Your task to perform on an android device: set the stopwatch Image 0: 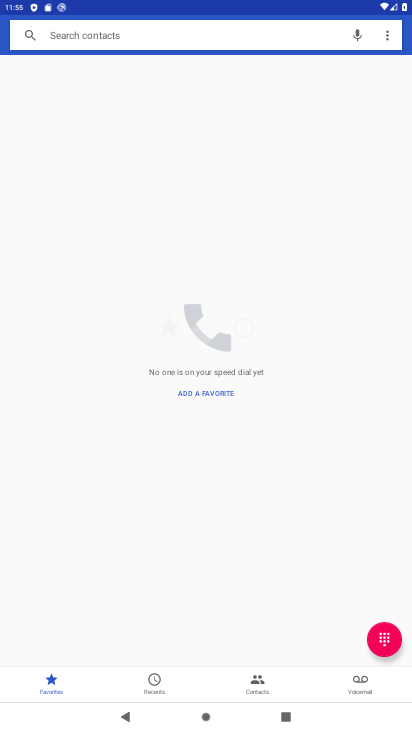
Step 0: press home button
Your task to perform on an android device: set the stopwatch Image 1: 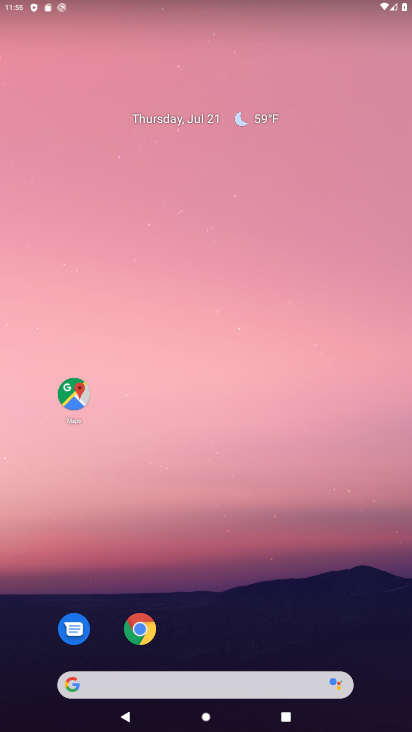
Step 1: drag from (273, 618) to (309, 212)
Your task to perform on an android device: set the stopwatch Image 2: 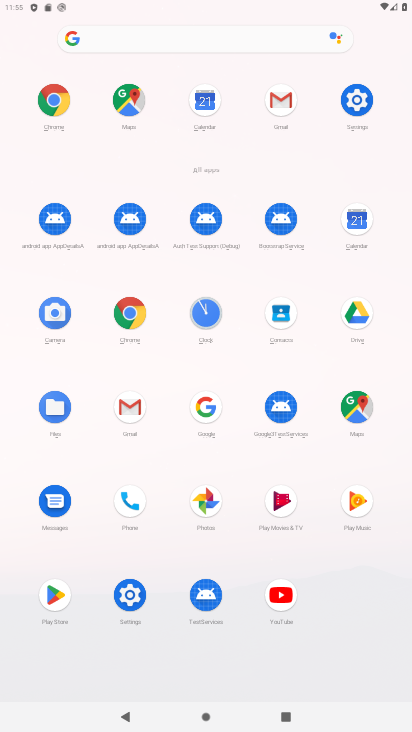
Step 2: click (197, 309)
Your task to perform on an android device: set the stopwatch Image 3: 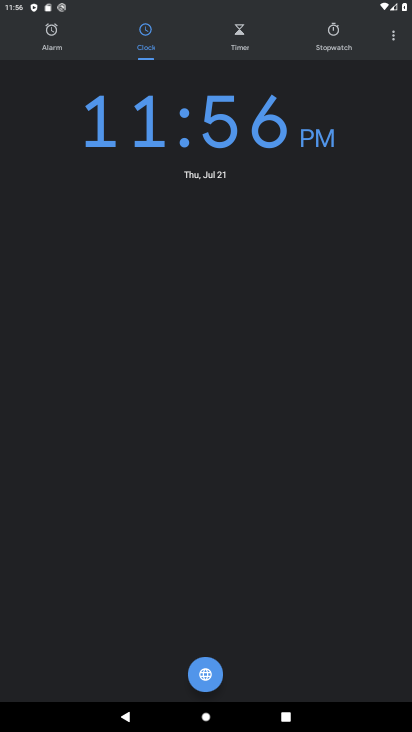
Step 3: click (323, 37)
Your task to perform on an android device: set the stopwatch Image 4: 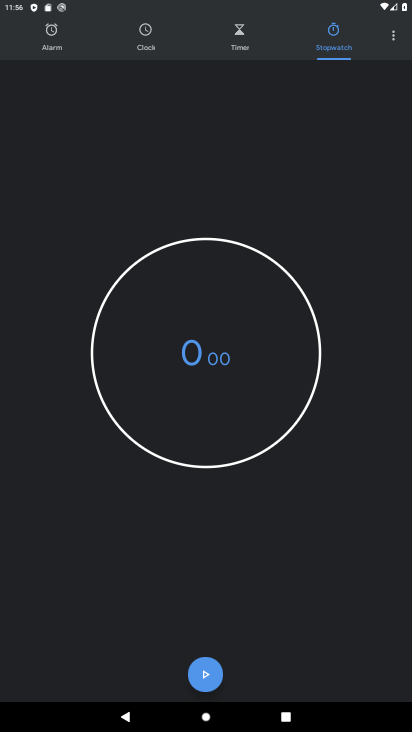
Step 4: click (203, 682)
Your task to perform on an android device: set the stopwatch Image 5: 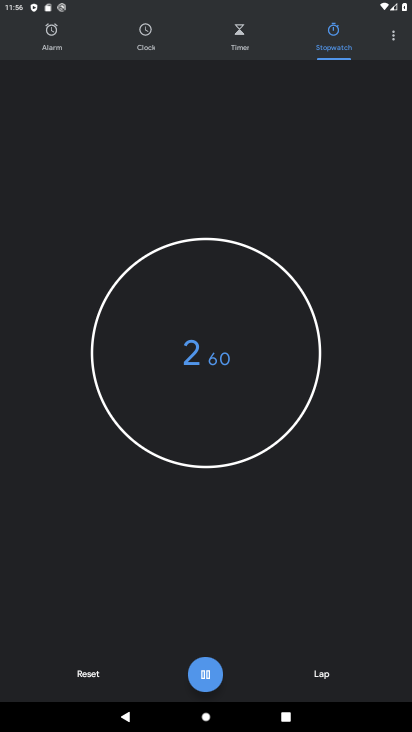
Step 5: task complete